Your task to perform on an android device: Search for the Nintendo Switch. Image 0: 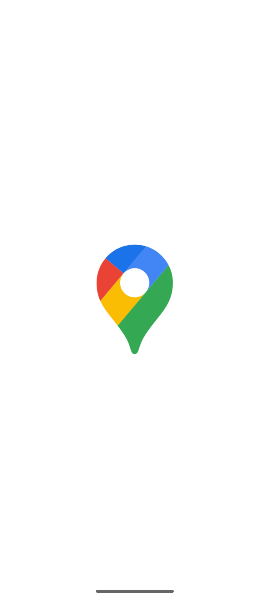
Step 0: press home button
Your task to perform on an android device: Search for the Nintendo Switch. Image 1: 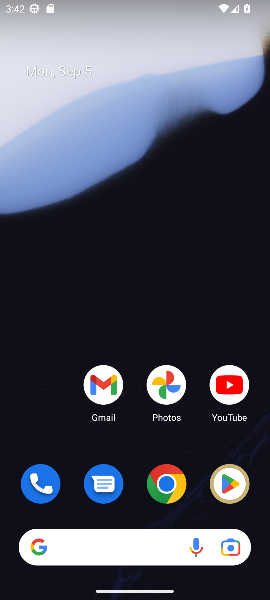
Step 1: click (167, 482)
Your task to perform on an android device: Search for the Nintendo Switch. Image 2: 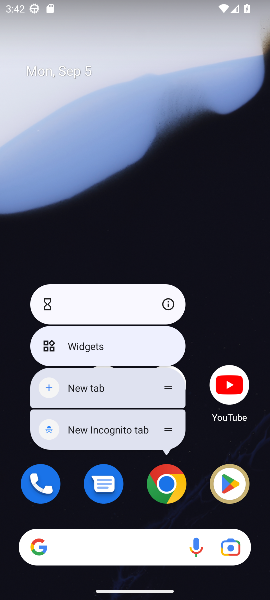
Step 2: click (170, 477)
Your task to perform on an android device: Search for the Nintendo Switch. Image 3: 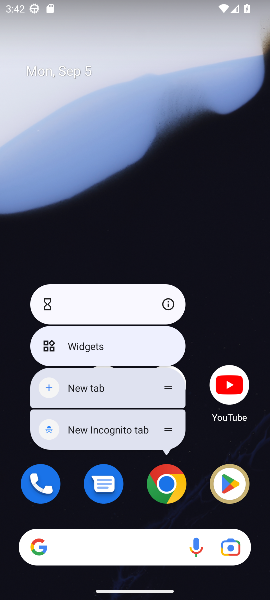
Step 3: click (170, 476)
Your task to perform on an android device: Search for the Nintendo Switch. Image 4: 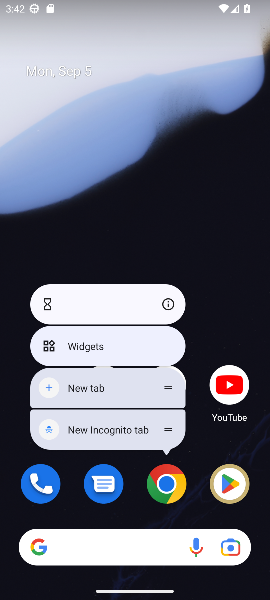
Step 4: click (170, 476)
Your task to perform on an android device: Search for the Nintendo Switch. Image 5: 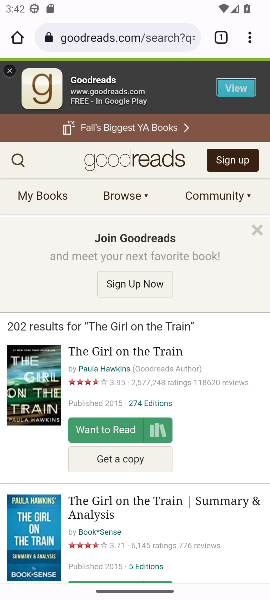
Step 5: click (160, 35)
Your task to perform on an android device: Search for the Nintendo Switch. Image 6: 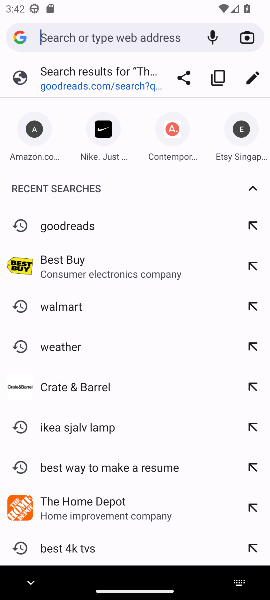
Step 6: type "Nintendo Switch"
Your task to perform on an android device: Search for the Nintendo Switch. Image 7: 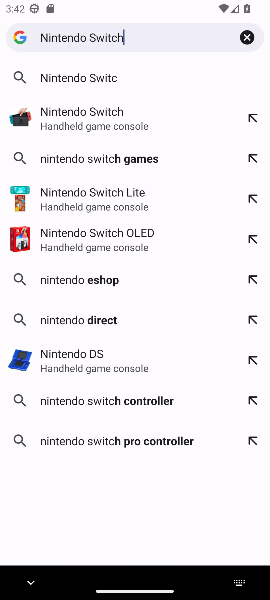
Step 7: press enter
Your task to perform on an android device: Search for the Nintendo Switch. Image 8: 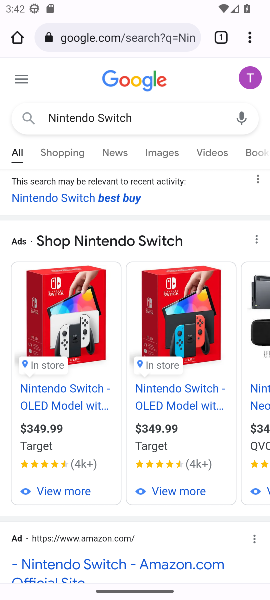
Step 8: task complete